Your task to perform on an android device: check storage Image 0: 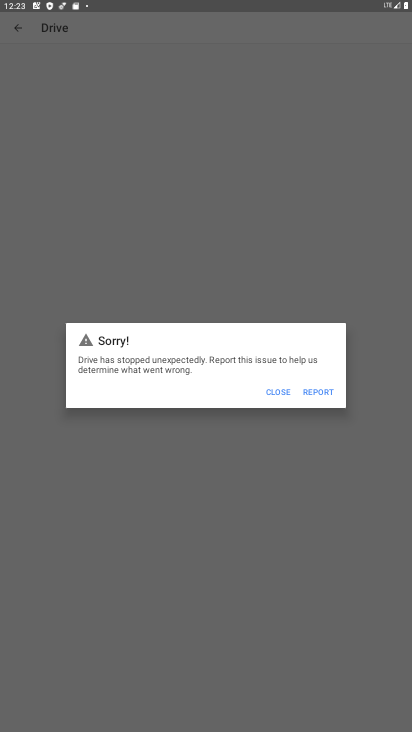
Step 0: press home button
Your task to perform on an android device: check storage Image 1: 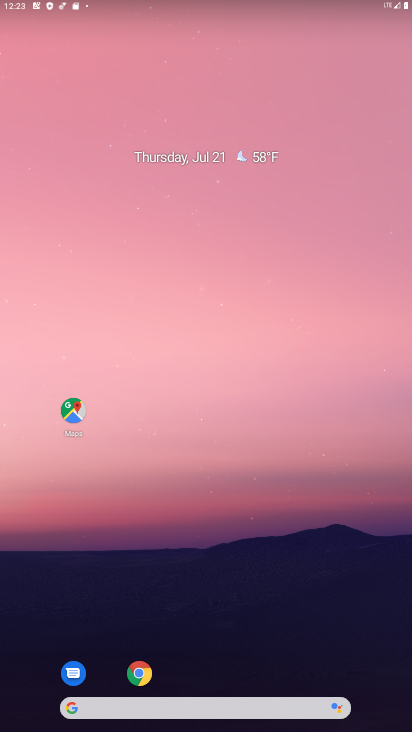
Step 1: drag from (253, 647) to (295, 138)
Your task to perform on an android device: check storage Image 2: 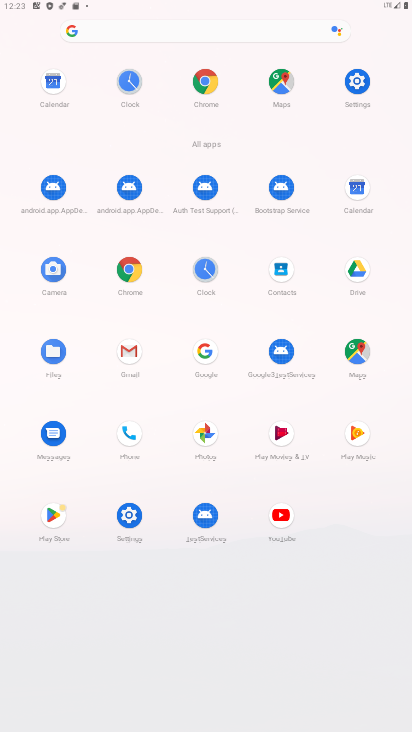
Step 2: click (346, 84)
Your task to perform on an android device: check storage Image 3: 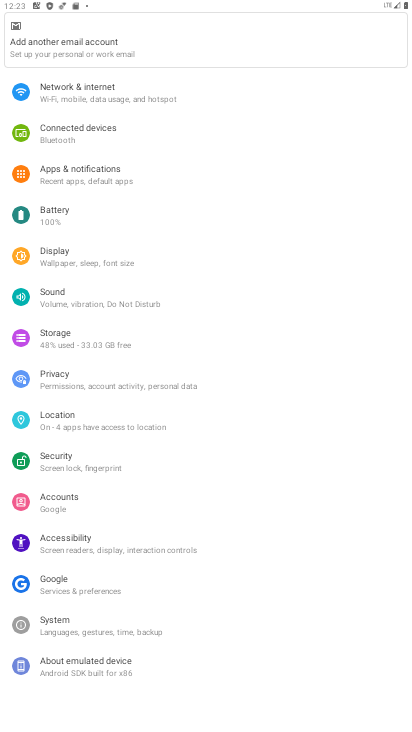
Step 3: click (72, 338)
Your task to perform on an android device: check storage Image 4: 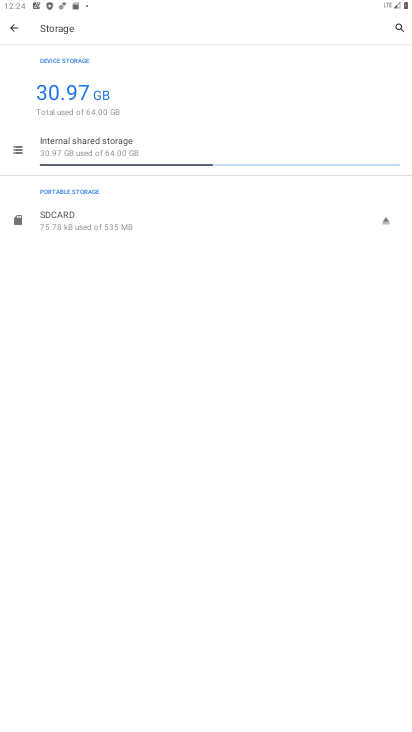
Step 4: task complete